Your task to perform on an android device: Search for "razer blade" on costco, select the first entry, add it to the cart, then select checkout. Image 0: 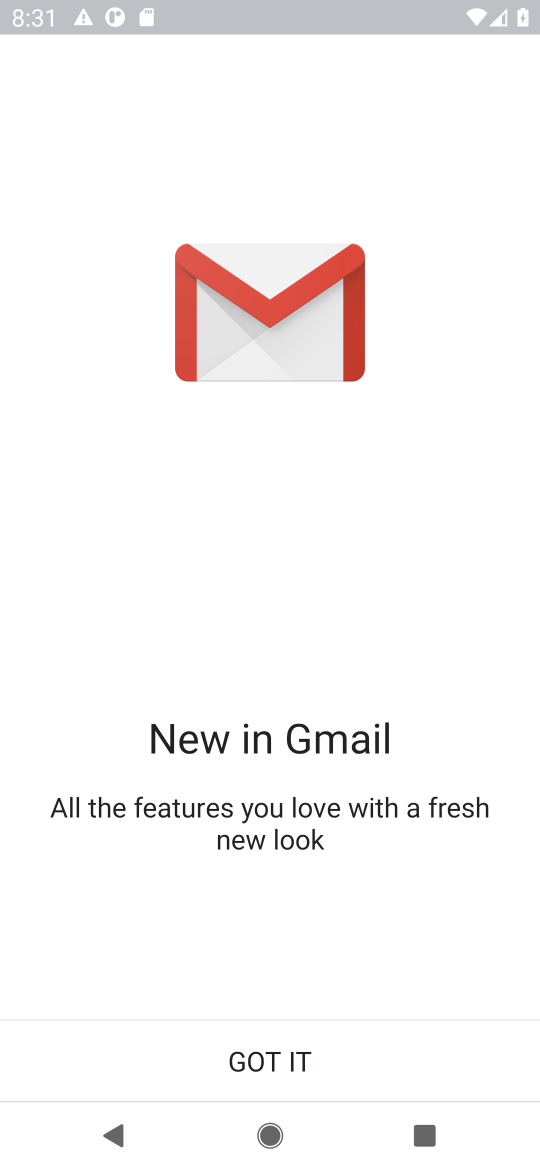
Step 0: press home button
Your task to perform on an android device: Search for "razer blade" on costco, select the first entry, add it to the cart, then select checkout. Image 1: 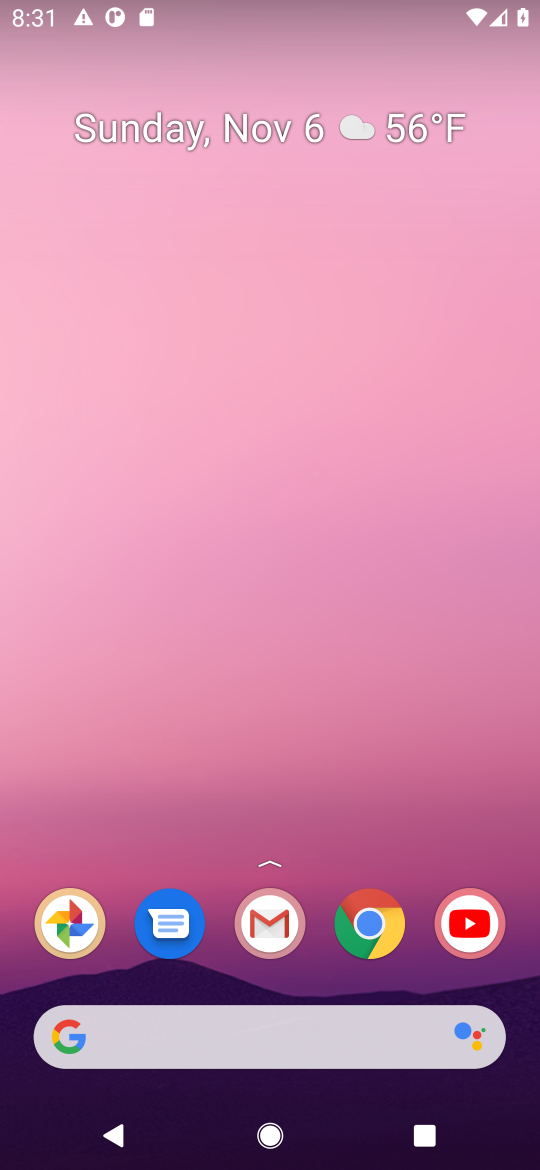
Step 1: click (375, 935)
Your task to perform on an android device: Search for "razer blade" on costco, select the first entry, add it to the cart, then select checkout. Image 2: 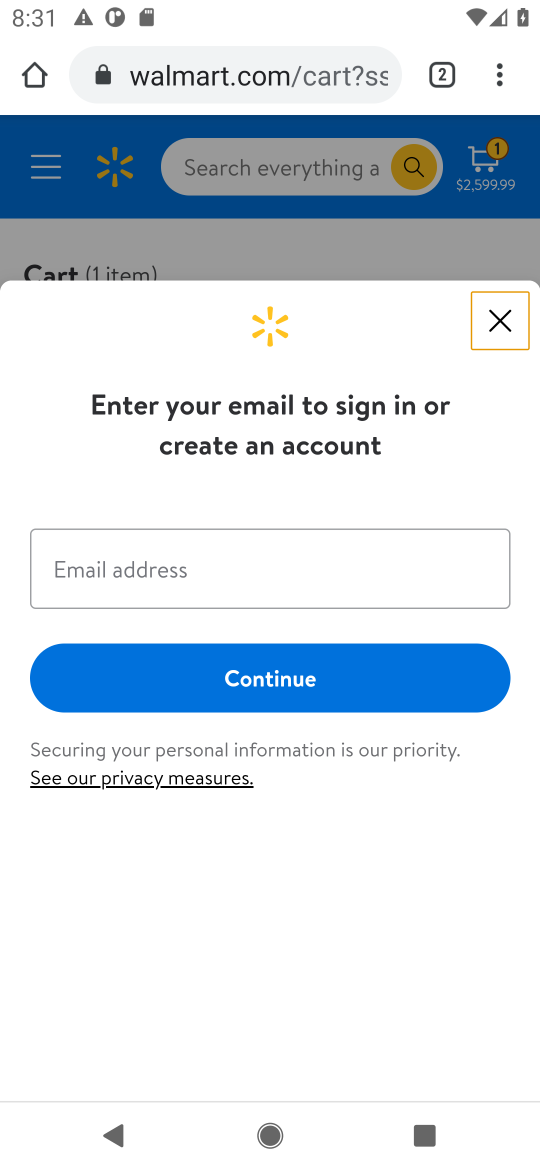
Step 2: click (279, 80)
Your task to perform on an android device: Search for "razer blade" on costco, select the first entry, add it to the cart, then select checkout. Image 3: 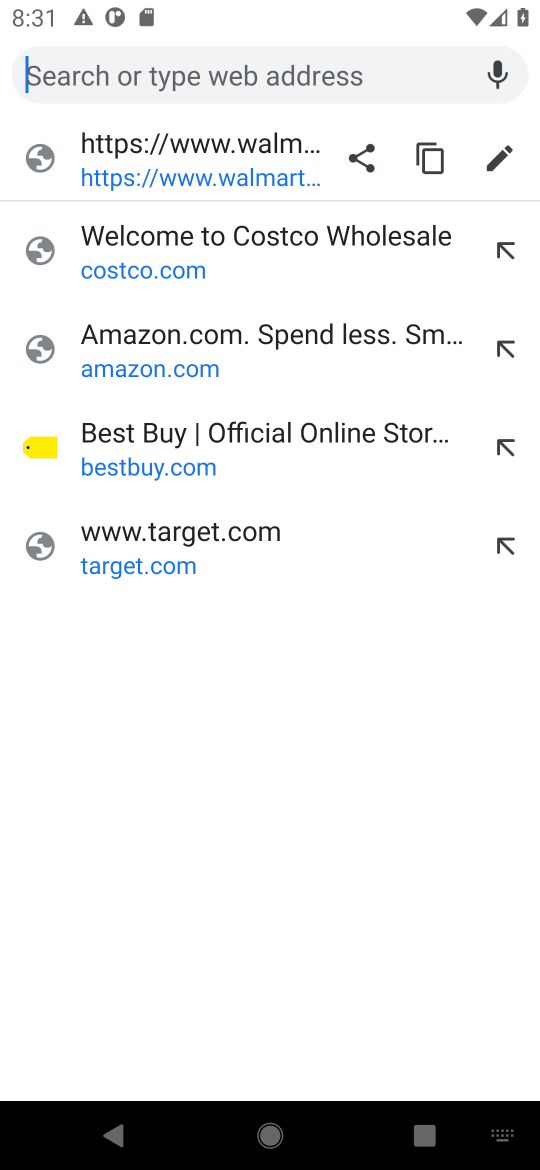
Step 3: click (123, 279)
Your task to perform on an android device: Search for "razer blade" on costco, select the first entry, add it to the cart, then select checkout. Image 4: 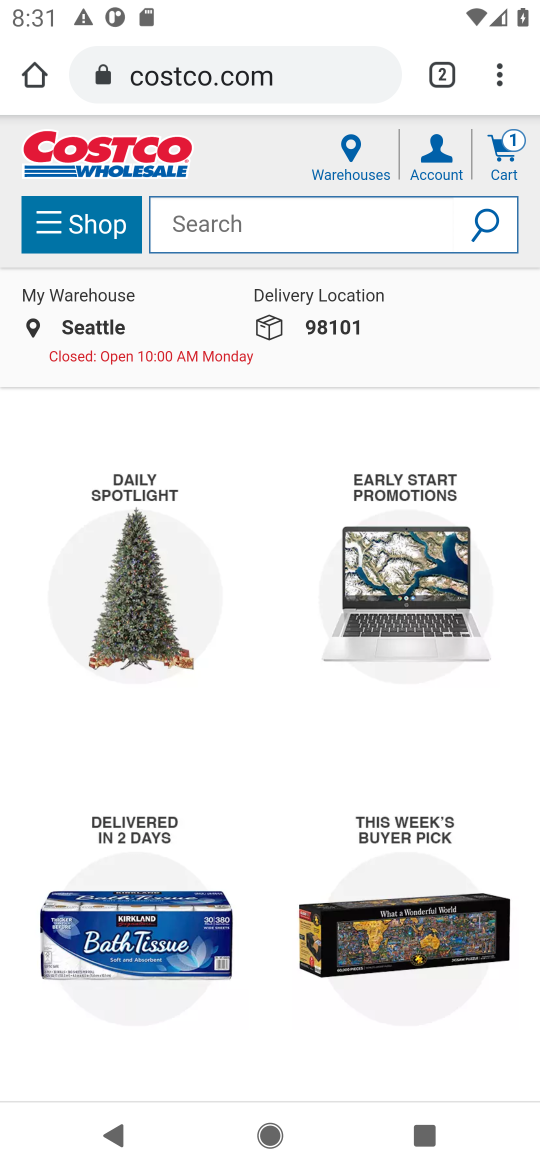
Step 4: click (183, 240)
Your task to perform on an android device: Search for "razer blade" on costco, select the first entry, add it to the cart, then select checkout. Image 5: 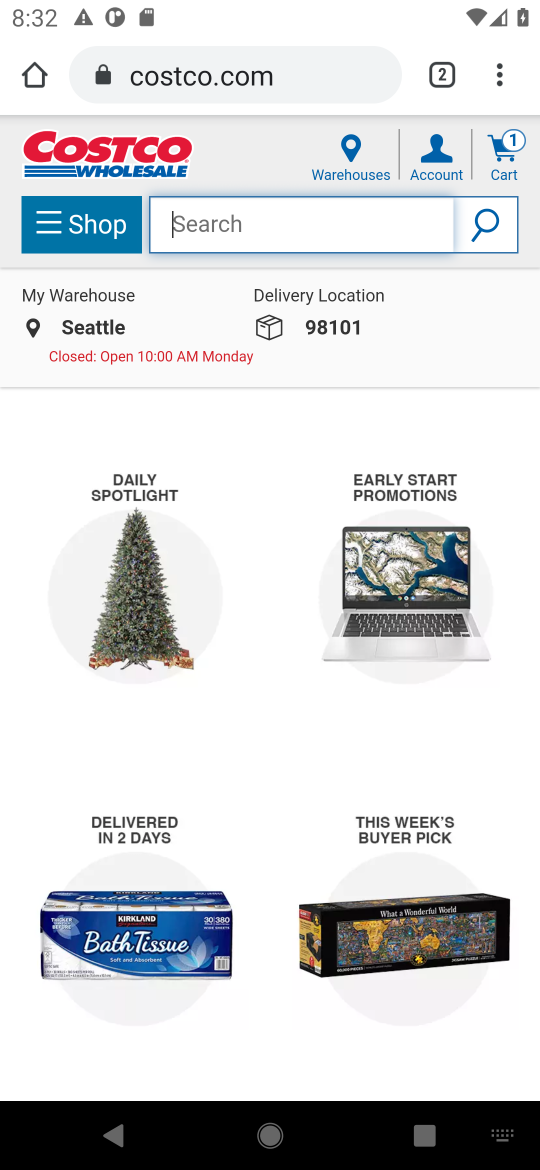
Step 5: type "razer blade"
Your task to perform on an android device: Search for "razer blade" on costco, select the first entry, add it to the cart, then select checkout. Image 6: 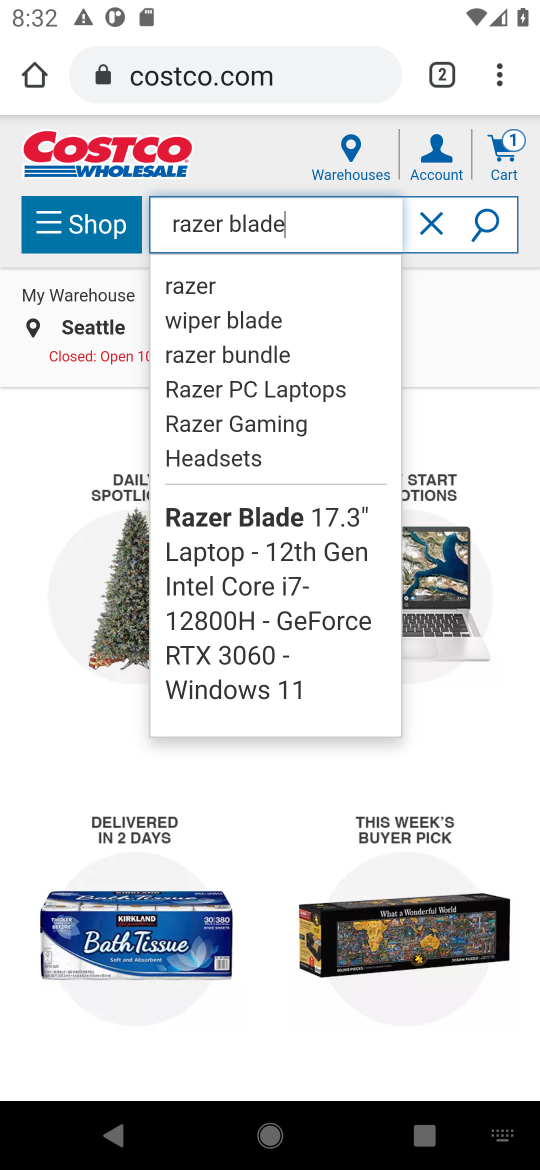
Step 6: click (485, 222)
Your task to perform on an android device: Search for "razer blade" on costco, select the first entry, add it to the cart, then select checkout. Image 7: 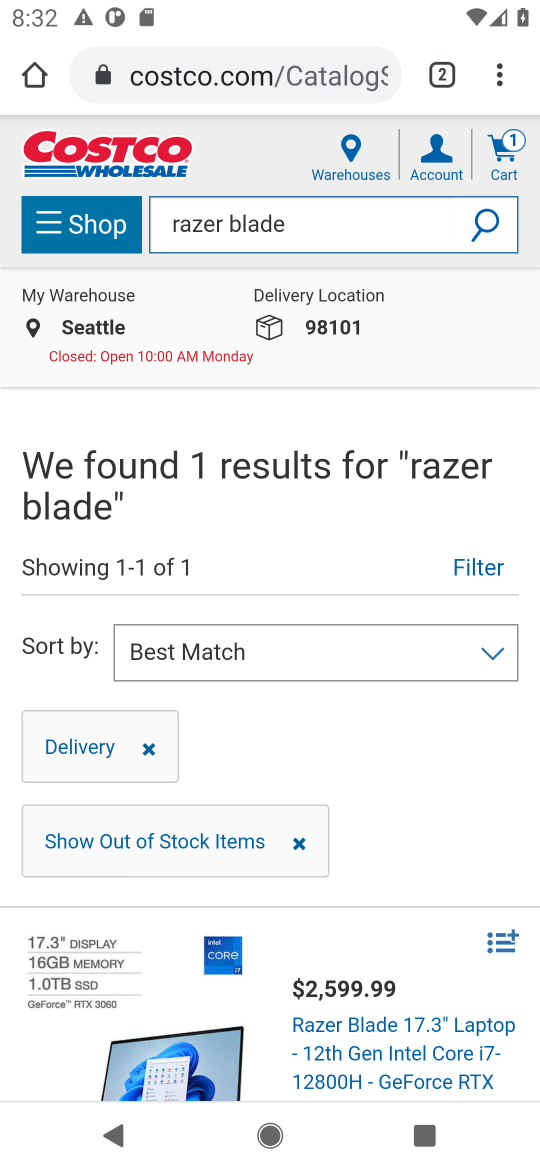
Step 7: click (331, 1062)
Your task to perform on an android device: Search for "razer blade" on costco, select the first entry, add it to the cart, then select checkout. Image 8: 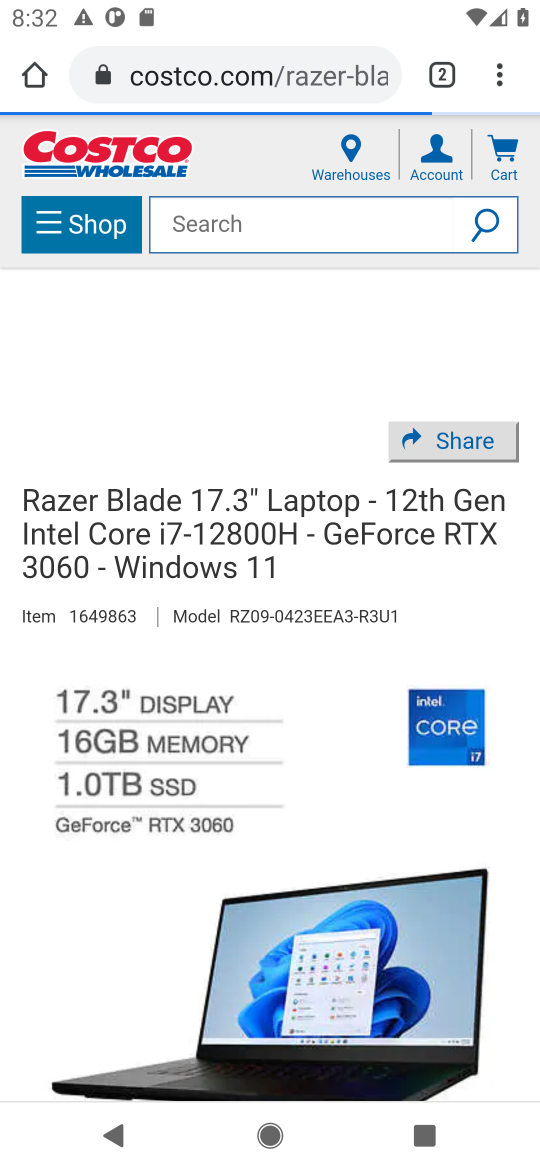
Step 8: drag from (314, 997) to (362, 370)
Your task to perform on an android device: Search for "razer blade" on costco, select the first entry, add it to the cart, then select checkout. Image 9: 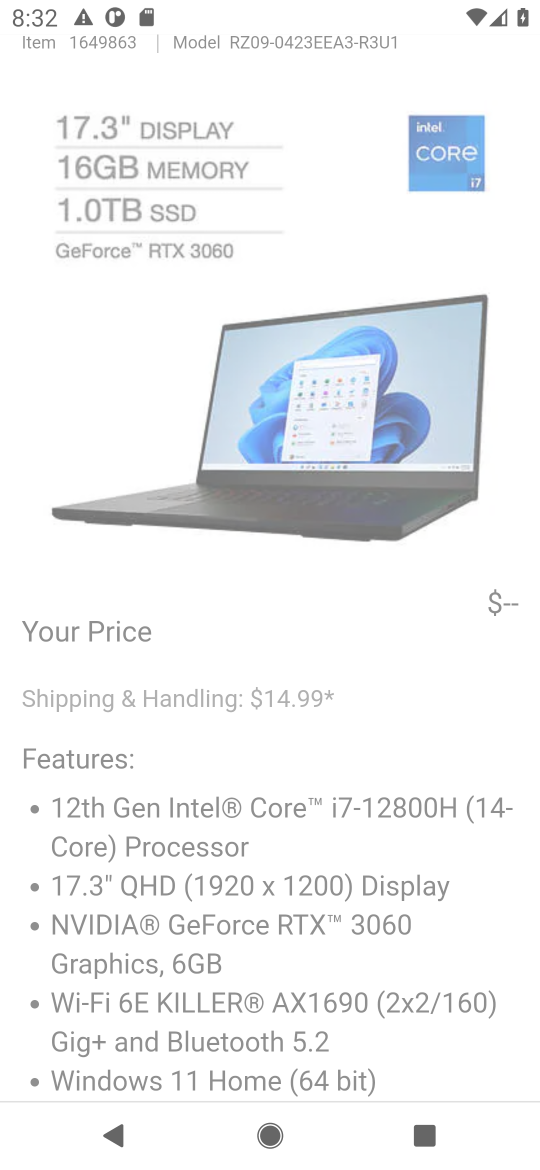
Step 9: drag from (313, 917) to (356, 458)
Your task to perform on an android device: Search for "razer blade" on costco, select the first entry, add it to the cart, then select checkout. Image 10: 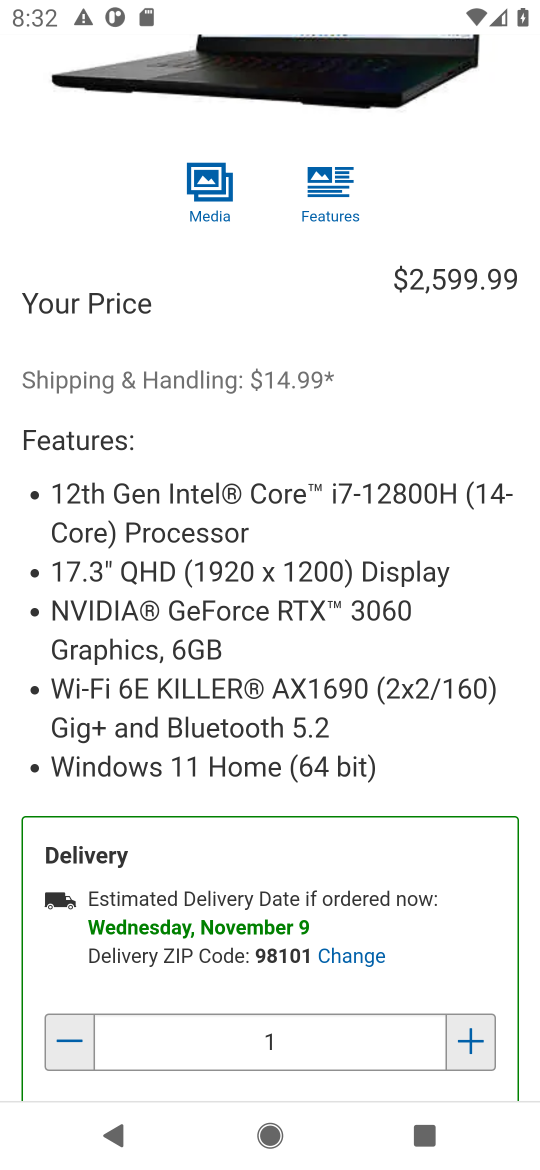
Step 10: drag from (498, 983) to (513, 441)
Your task to perform on an android device: Search for "razer blade" on costco, select the first entry, add it to the cart, then select checkout. Image 11: 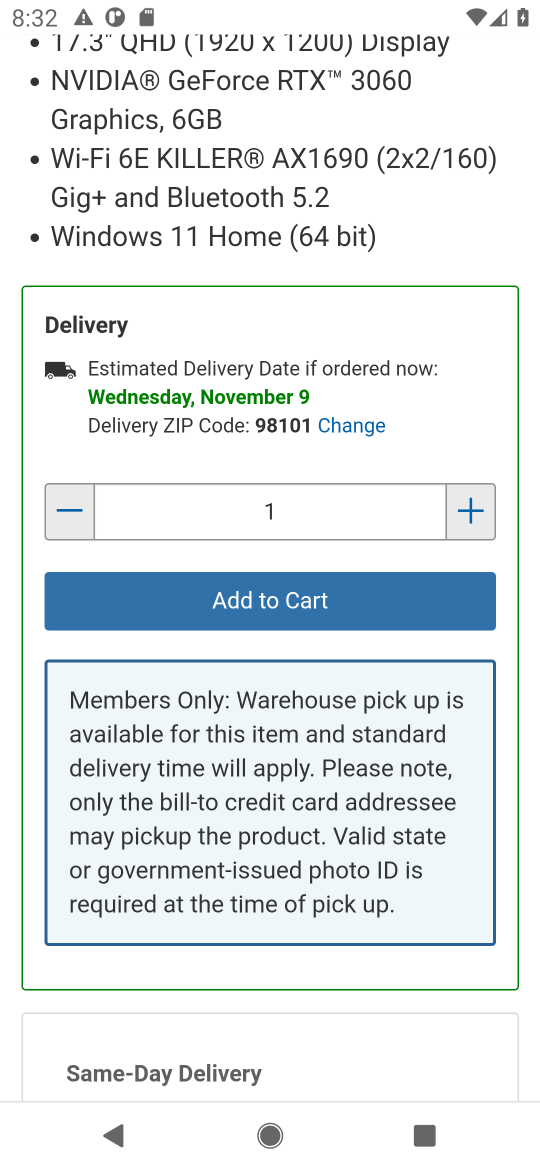
Step 11: click (218, 610)
Your task to perform on an android device: Search for "razer blade" on costco, select the first entry, add it to the cart, then select checkout. Image 12: 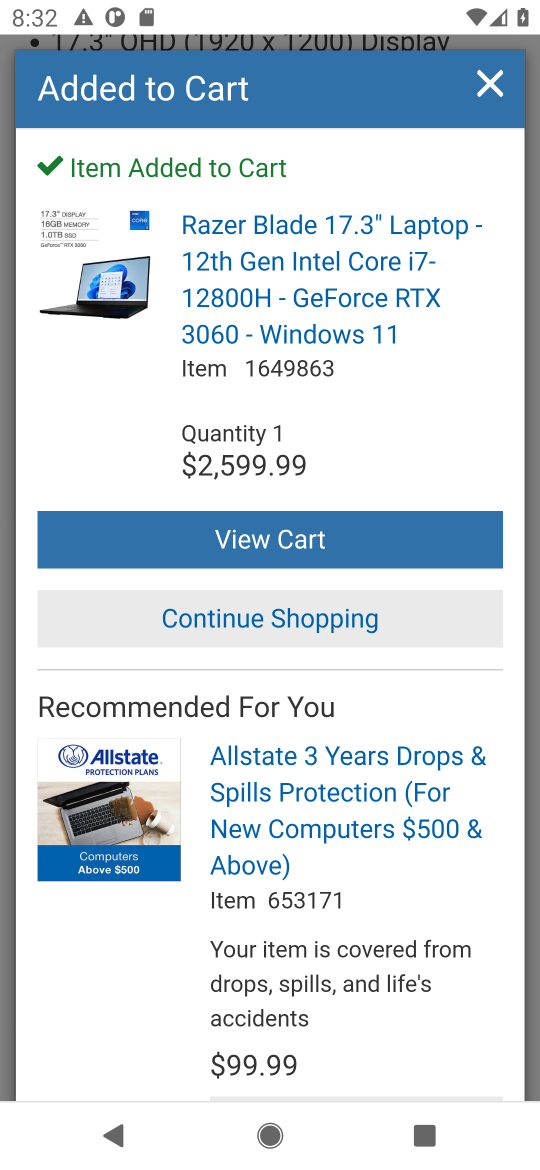
Step 12: click (253, 541)
Your task to perform on an android device: Search for "razer blade" on costco, select the first entry, add it to the cart, then select checkout. Image 13: 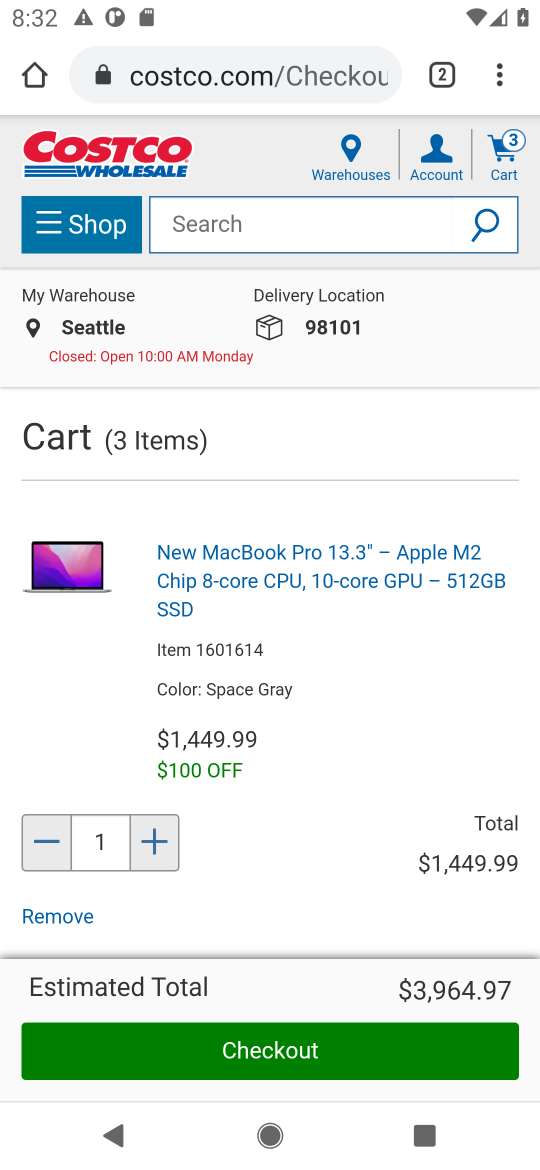
Step 13: click (288, 1052)
Your task to perform on an android device: Search for "razer blade" on costco, select the first entry, add it to the cart, then select checkout. Image 14: 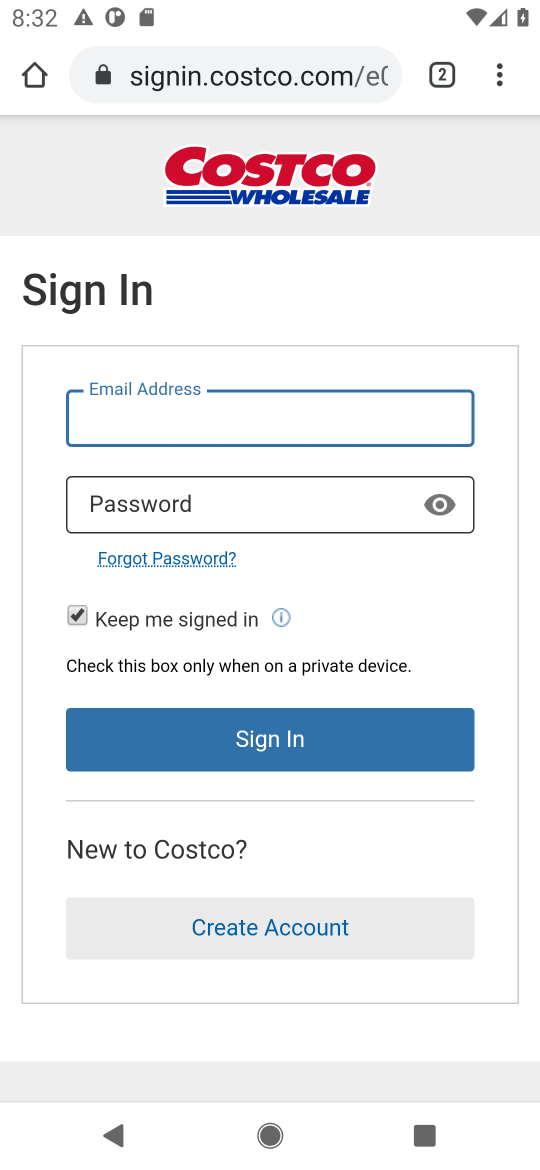
Step 14: task complete